Your task to perform on an android device: turn on data saver in the chrome app Image 0: 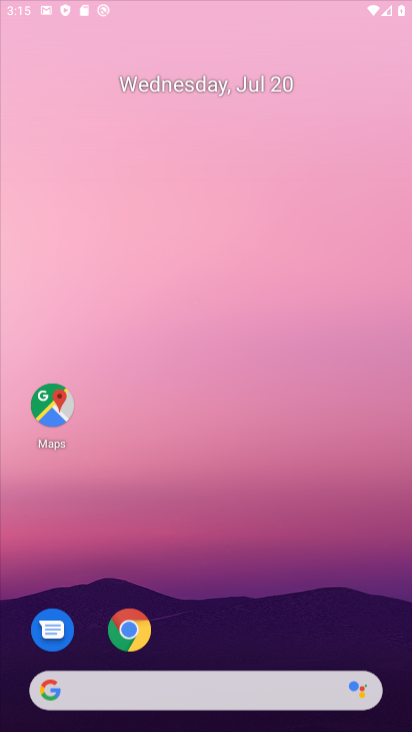
Step 0: press home button
Your task to perform on an android device: turn on data saver in the chrome app Image 1: 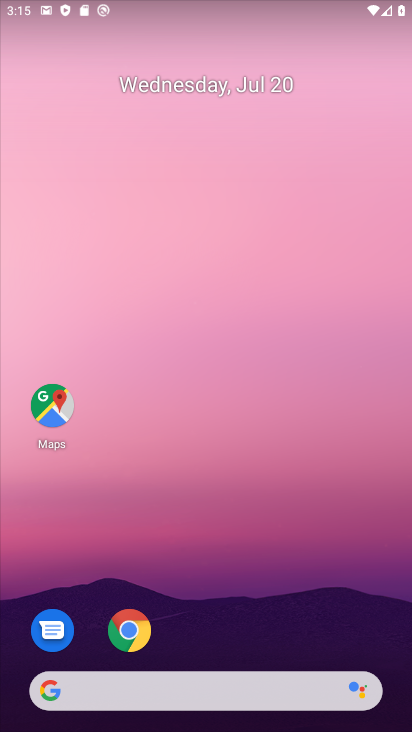
Step 1: click (129, 638)
Your task to perform on an android device: turn on data saver in the chrome app Image 2: 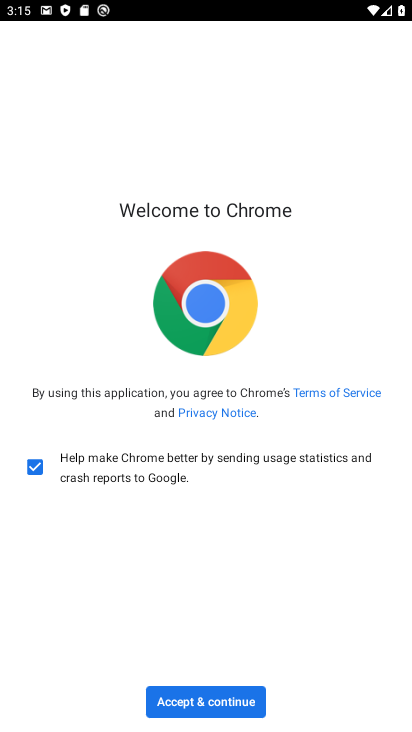
Step 2: click (201, 697)
Your task to perform on an android device: turn on data saver in the chrome app Image 3: 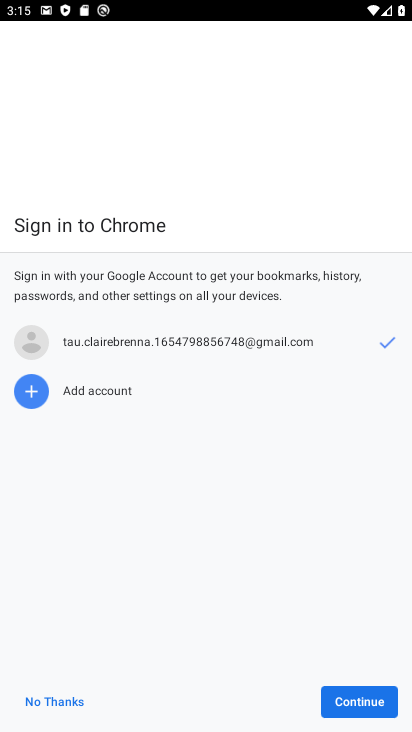
Step 3: click (339, 689)
Your task to perform on an android device: turn on data saver in the chrome app Image 4: 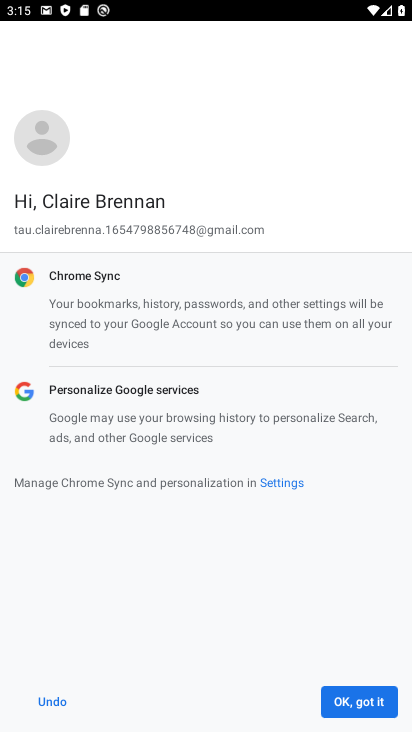
Step 4: click (342, 700)
Your task to perform on an android device: turn on data saver in the chrome app Image 5: 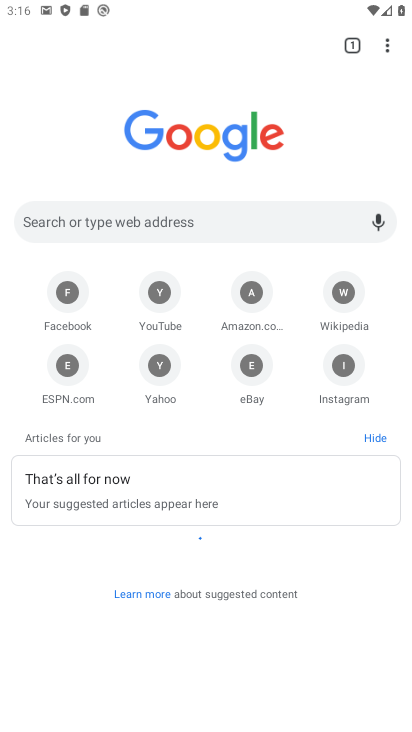
Step 5: drag from (387, 43) to (275, 381)
Your task to perform on an android device: turn on data saver in the chrome app Image 6: 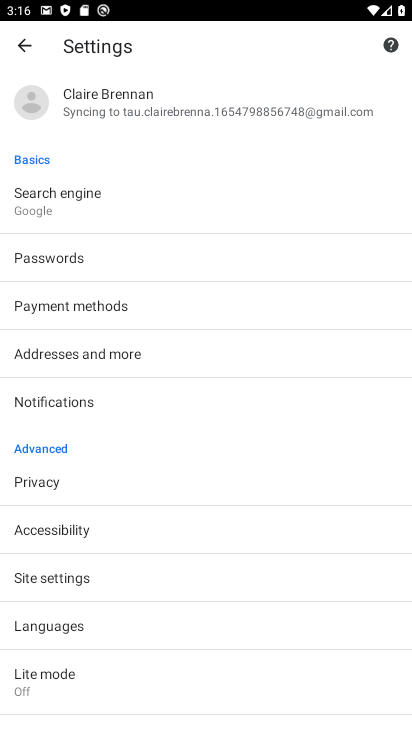
Step 6: drag from (167, 626) to (257, 234)
Your task to perform on an android device: turn on data saver in the chrome app Image 7: 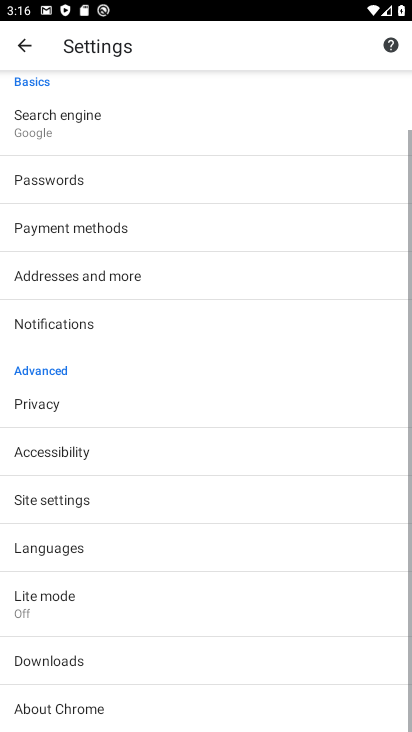
Step 7: click (111, 603)
Your task to perform on an android device: turn on data saver in the chrome app Image 8: 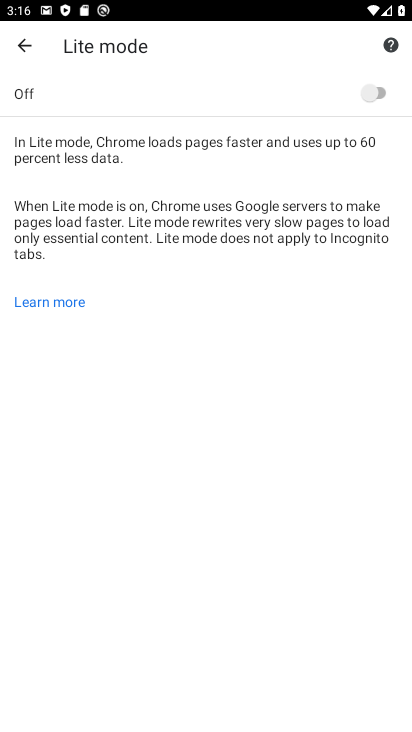
Step 8: click (381, 88)
Your task to perform on an android device: turn on data saver in the chrome app Image 9: 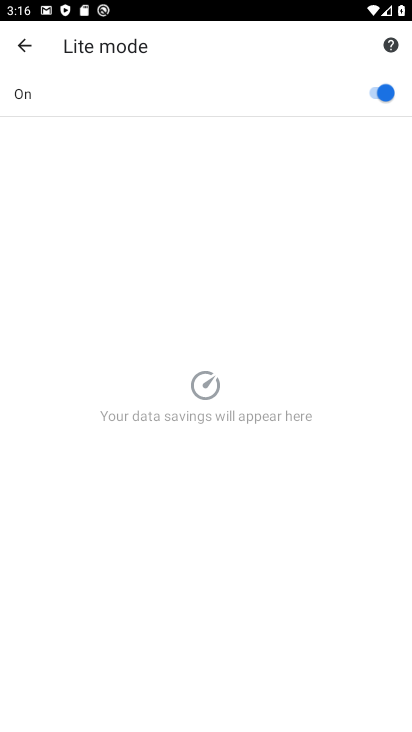
Step 9: task complete